Your task to perform on an android device: set the timer Image 0: 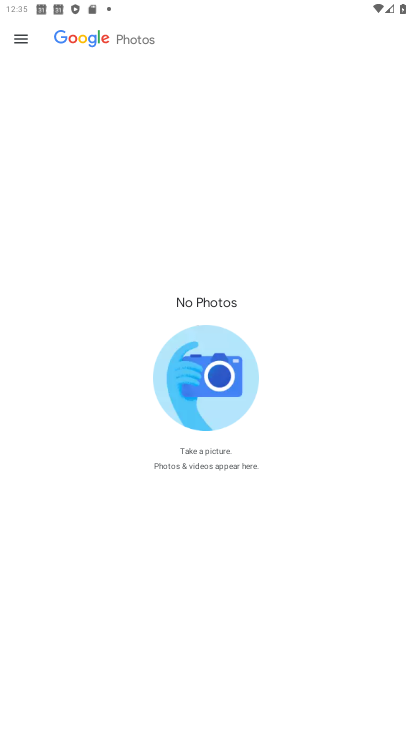
Step 0: press home button
Your task to perform on an android device: set the timer Image 1: 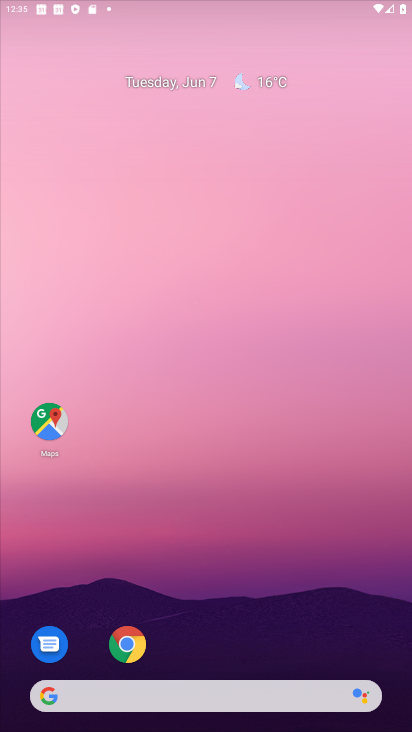
Step 1: drag from (223, 615) to (250, 176)
Your task to perform on an android device: set the timer Image 2: 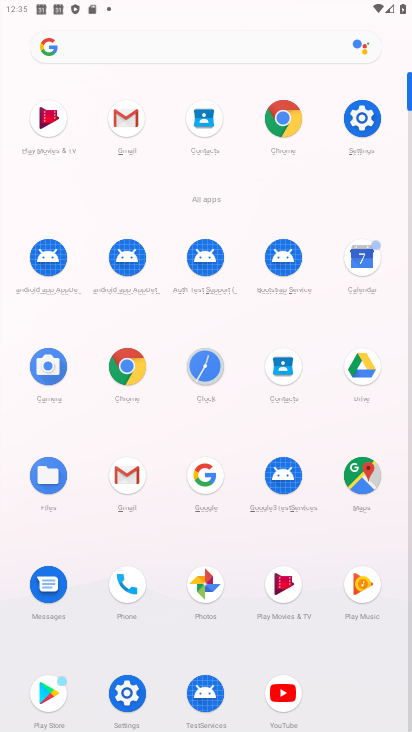
Step 2: click (208, 376)
Your task to perform on an android device: set the timer Image 3: 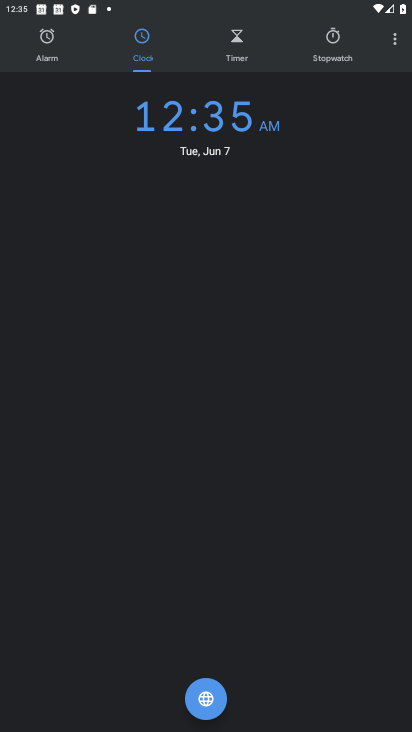
Step 3: click (240, 57)
Your task to perform on an android device: set the timer Image 4: 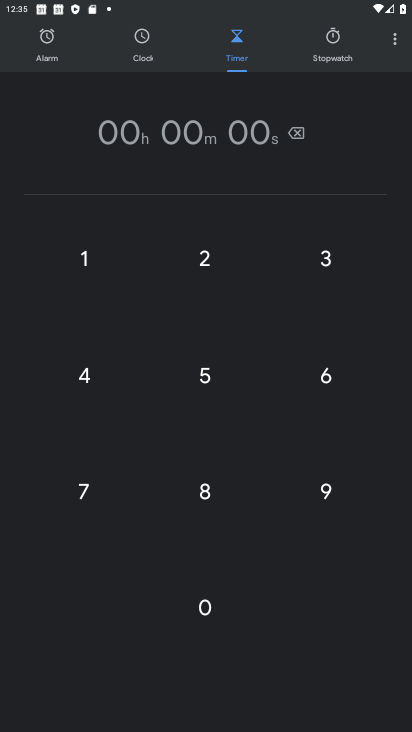
Step 4: drag from (222, 266) to (317, 268)
Your task to perform on an android device: set the timer Image 5: 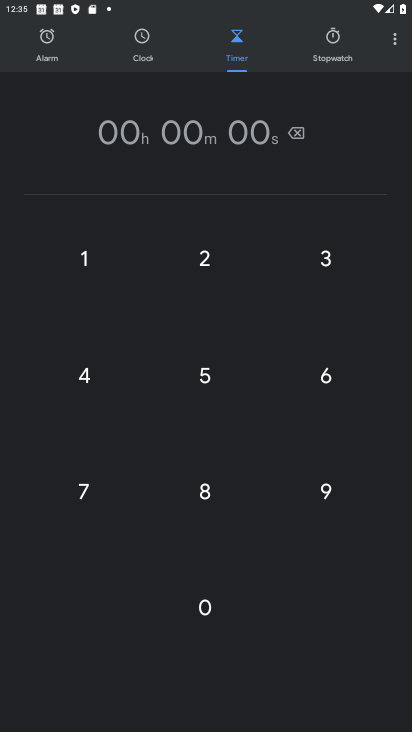
Step 5: click (216, 237)
Your task to perform on an android device: set the timer Image 6: 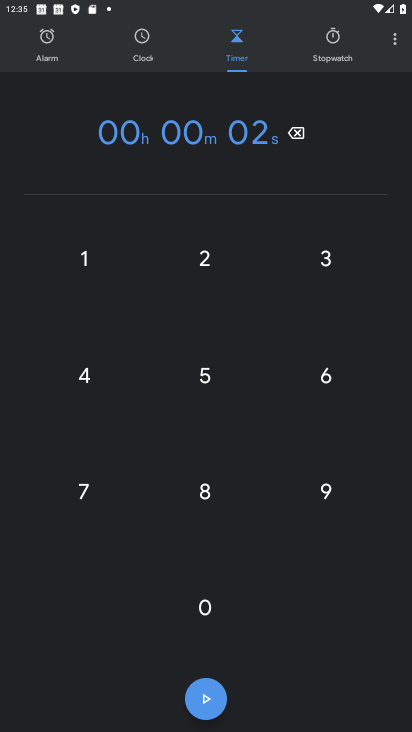
Step 6: click (315, 252)
Your task to perform on an android device: set the timer Image 7: 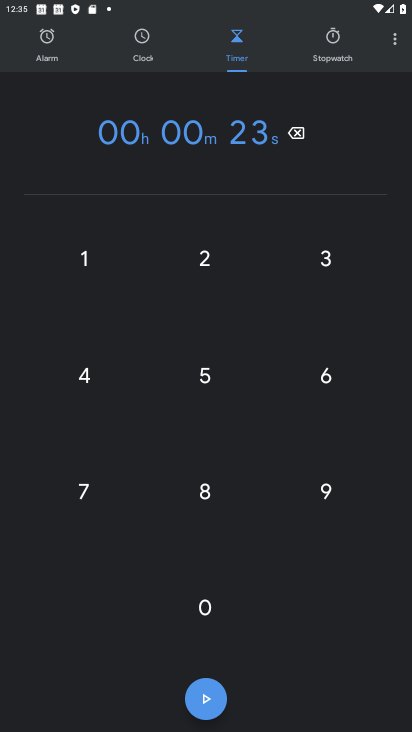
Step 7: task complete